Your task to perform on an android device: remove spam from my inbox in the gmail app Image 0: 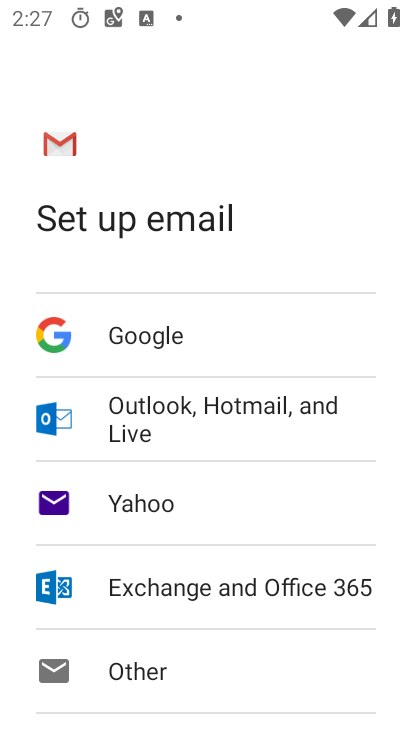
Step 0: press home button
Your task to perform on an android device: remove spam from my inbox in the gmail app Image 1: 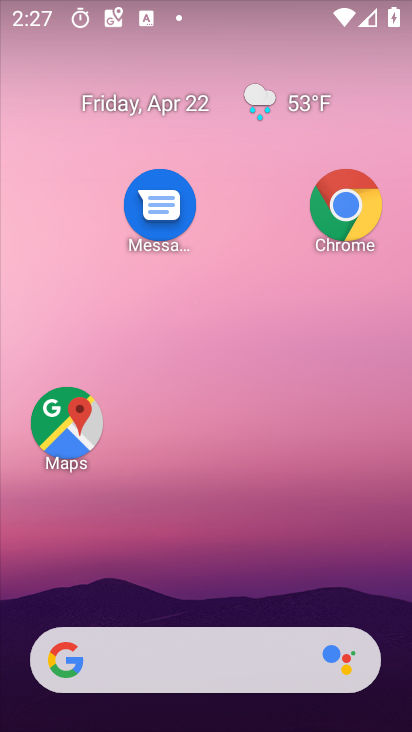
Step 1: drag from (213, 621) to (264, 117)
Your task to perform on an android device: remove spam from my inbox in the gmail app Image 2: 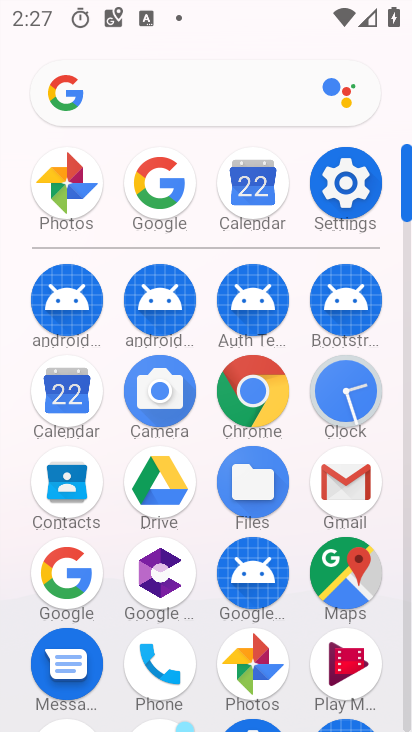
Step 2: click (349, 485)
Your task to perform on an android device: remove spam from my inbox in the gmail app Image 3: 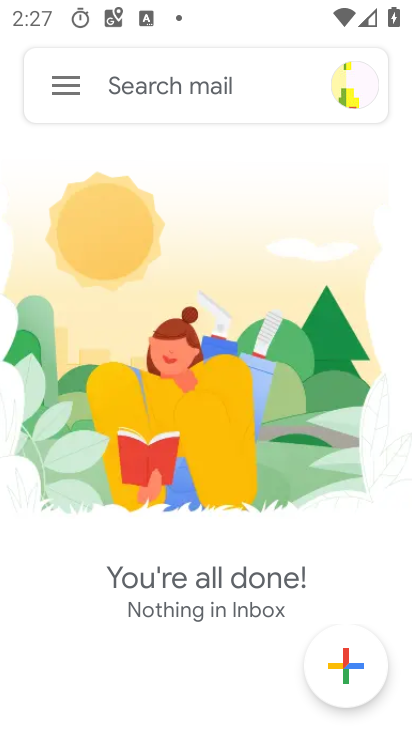
Step 3: click (70, 94)
Your task to perform on an android device: remove spam from my inbox in the gmail app Image 4: 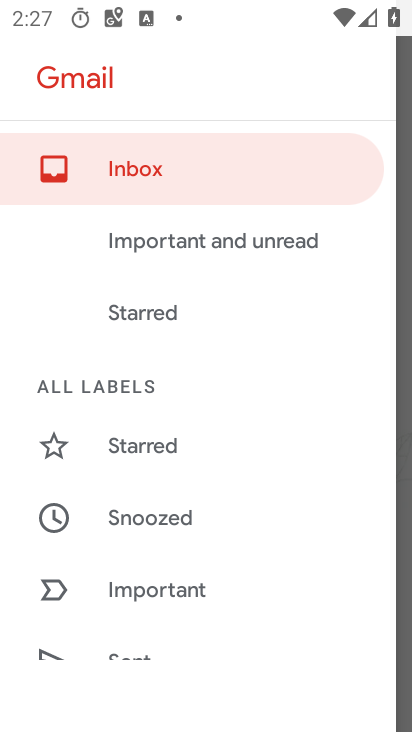
Step 4: drag from (151, 640) to (153, 290)
Your task to perform on an android device: remove spam from my inbox in the gmail app Image 5: 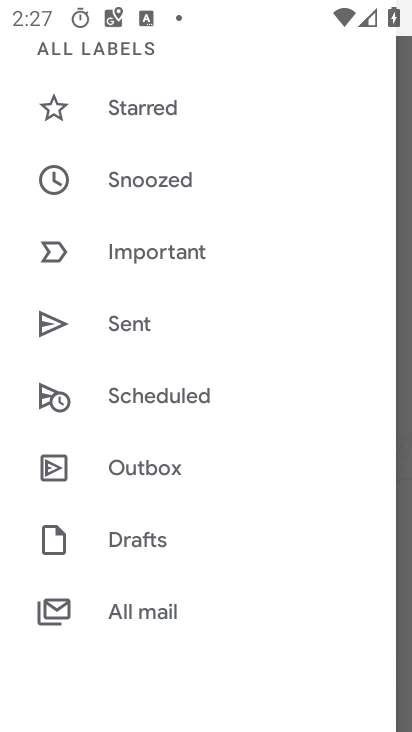
Step 5: drag from (185, 630) to (187, 249)
Your task to perform on an android device: remove spam from my inbox in the gmail app Image 6: 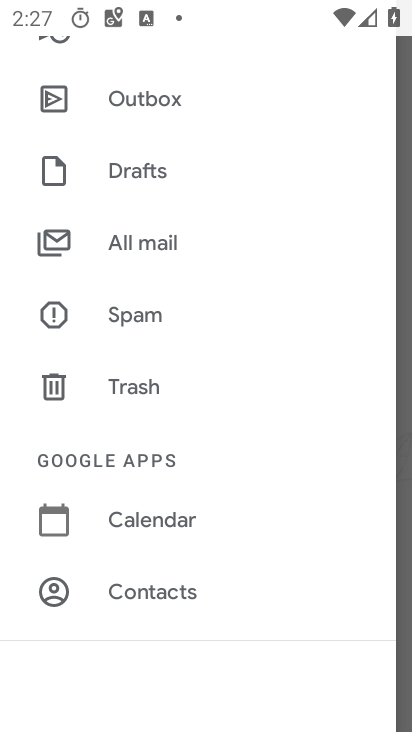
Step 6: click (136, 311)
Your task to perform on an android device: remove spam from my inbox in the gmail app Image 7: 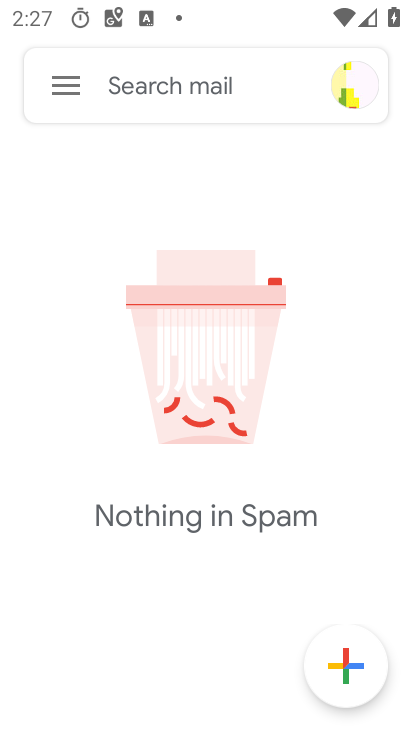
Step 7: task complete